Your task to perform on an android device: Set the phone to "Do not disturb". Image 0: 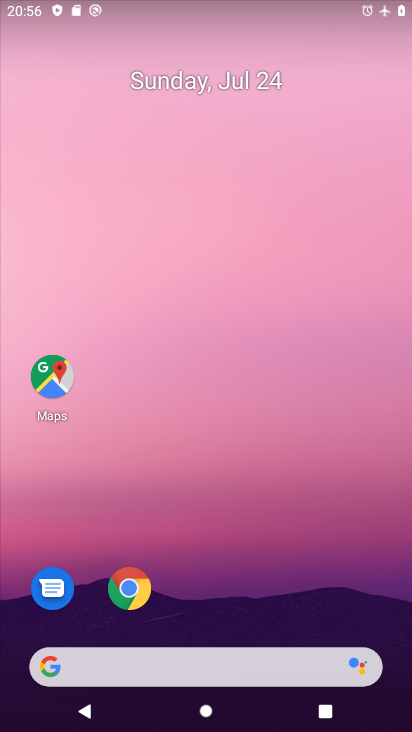
Step 0: drag from (224, 603) to (222, 82)
Your task to perform on an android device: Set the phone to "Do not disturb". Image 1: 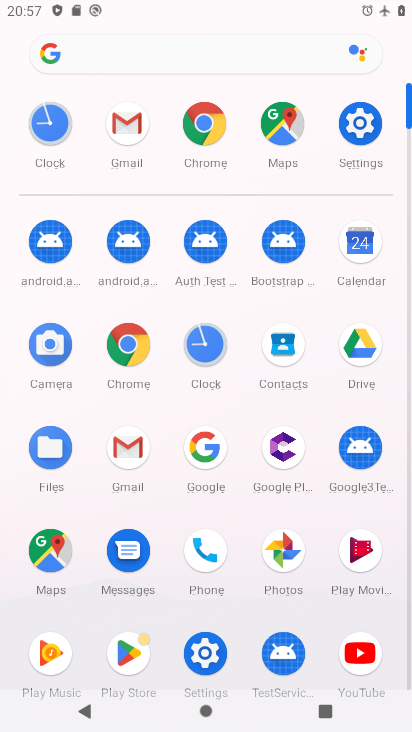
Step 1: click (354, 120)
Your task to perform on an android device: Set the phone to "Do not disturb". Image 2: 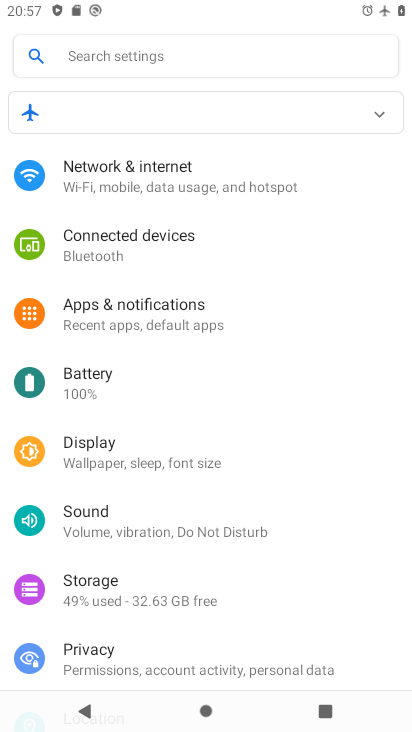
Step 2: click (129, 179)
Your task to perform on an android device: Set the phone to "Do not disturb". Image 3: 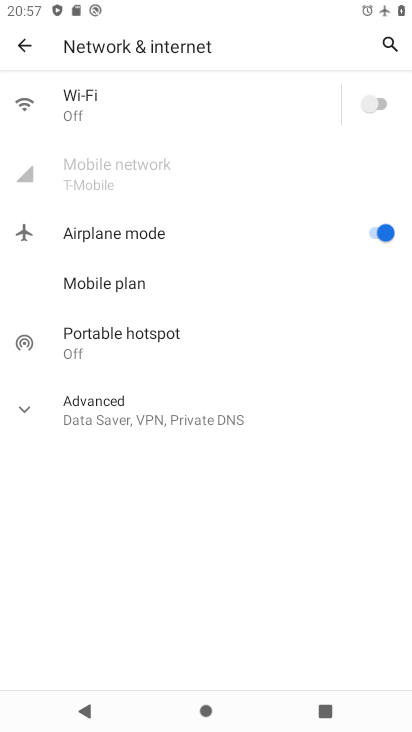
Step 3: click (41, 36)
Your task to perform on an android device: Set the phone to "Do not disturb". Image 4: 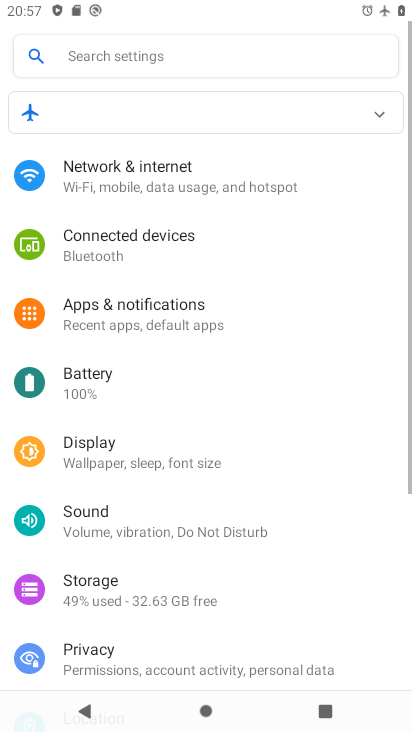
Step 4: drag from (177, 5) to (202, 730)
Your task to perform on an android device: Set the phone to "Do not disturb". Image 5: 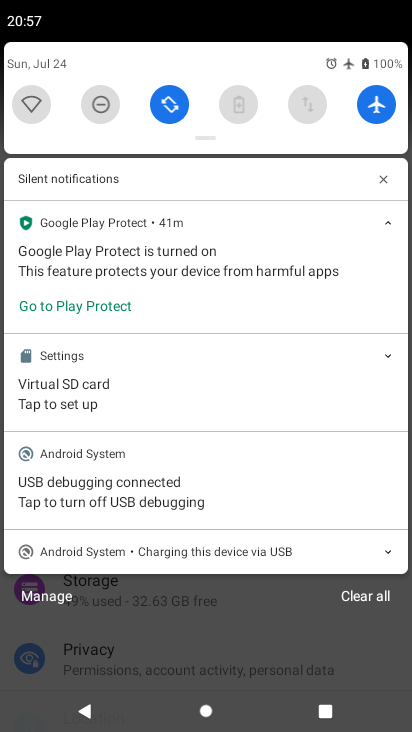
Step 5: click (85, 108)
Your task to perform on an android device: Set the phone to "Do not disturb". Image 6: 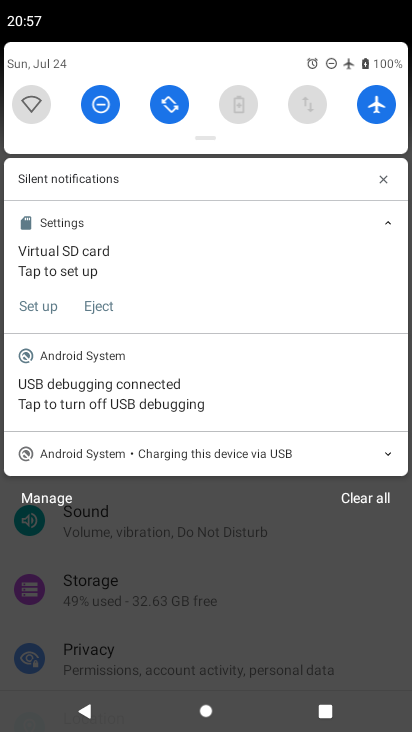
Step 6: task complete